Your task to perform on an android device: install app "Venmo" Image 0: 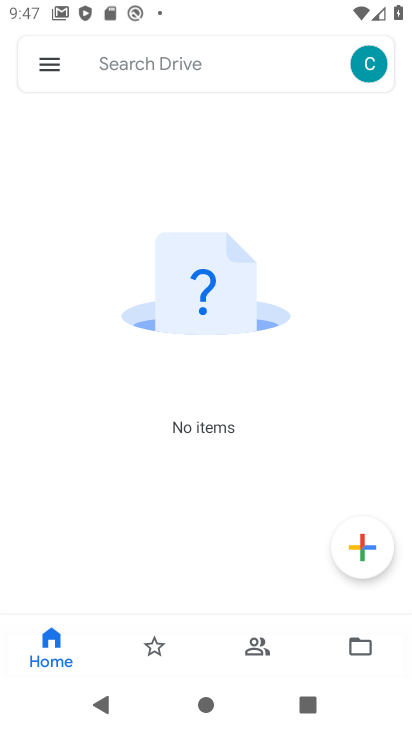
Step 0: press back button
Your task to perform on an android device: install app "Venmo" Image 1: 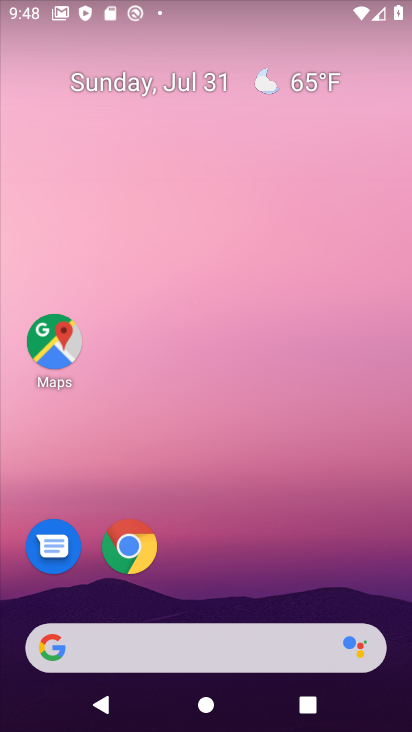
Step 1: drag from (260, 596) to (298, 54)
Your task to perform on an android device: install app "Venmo" Image 2: 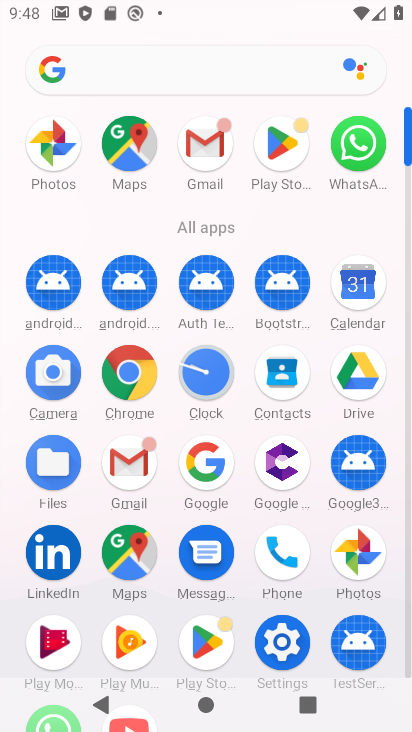
Step 2: click (279, 156)
Your task to perform on an android device: install app "Venmo" Image 3: 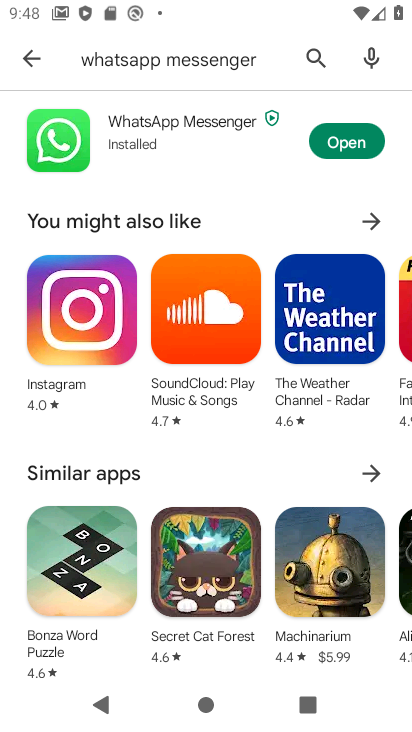
Step 3: click (327, 53)
Your task to perform on an android device: install app "Venmo" Image 4: 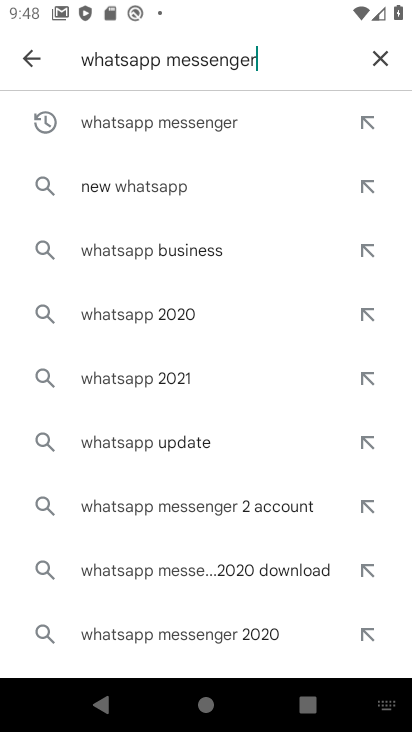
Step 4: click (389, 56)
Your task to perform on an android device: install app "Venmo" Image 5: 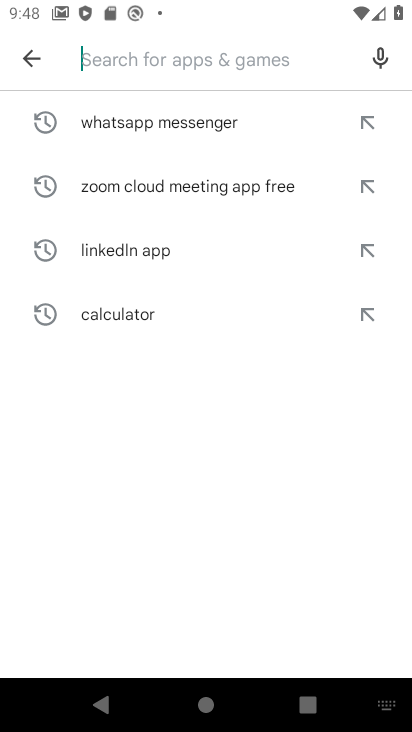
Step 5: click (152, 51)
Your task to perform on an android device: install app "Venmo" Image 6: 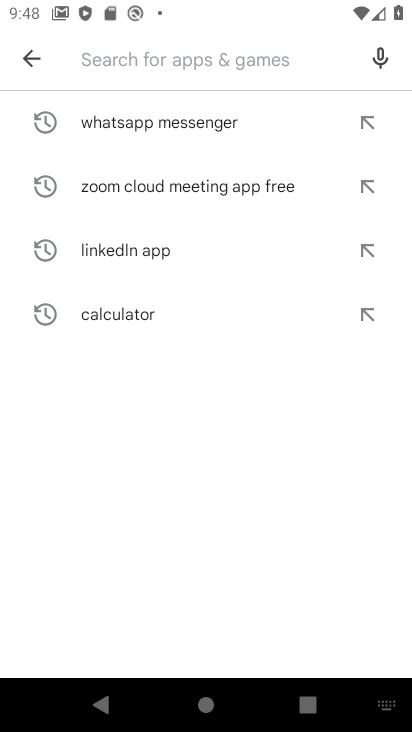
Step 6: type "venmo"
Your task to perform on an android device: install app "Venmo" Image 7: 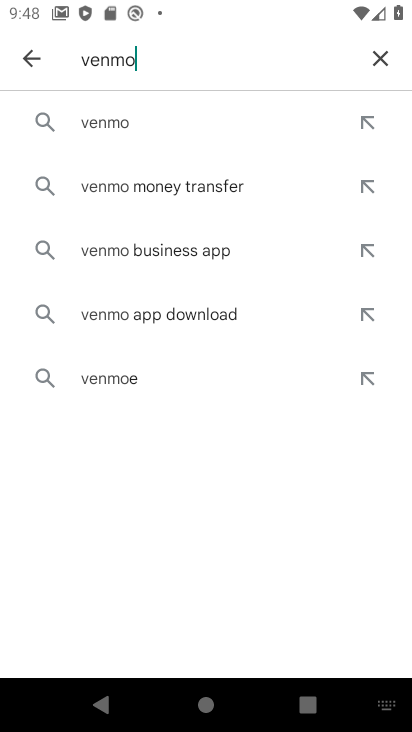
Step 7: click (138, 125)
Your task to perform on an android device: install app "Venmo" Image 8: 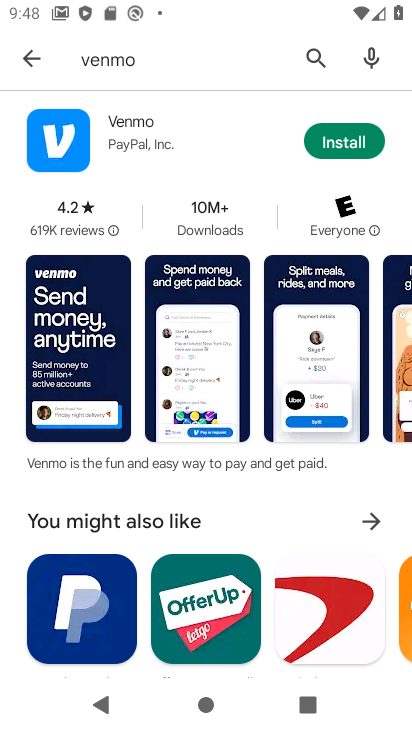
Step 8: click (347, 146)
Your task to perform on an android device: install app "Venmo" Image 9: 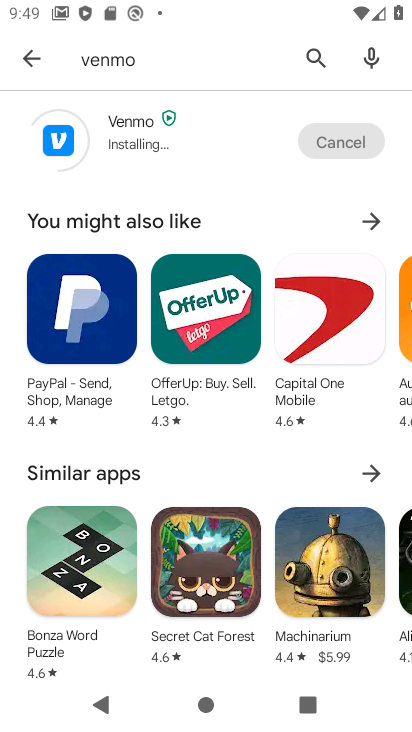
Step 9: click (21, 52)
Your task to perform on an android device: install app "Venmo" Image 10: 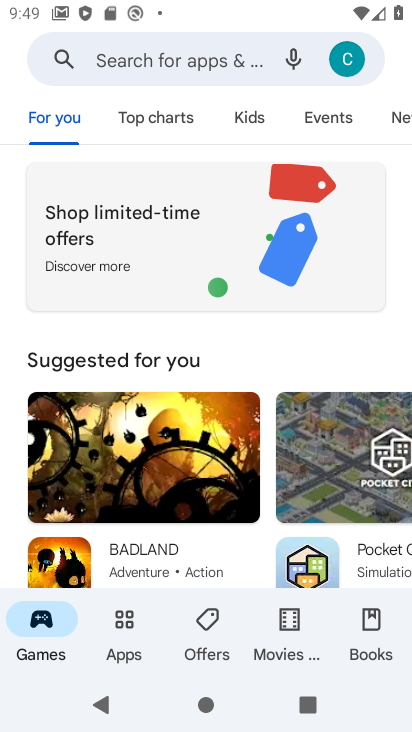
Step 10: click (148, 70)
Your task to perform on an android device: install app "Venmo" Image 11: 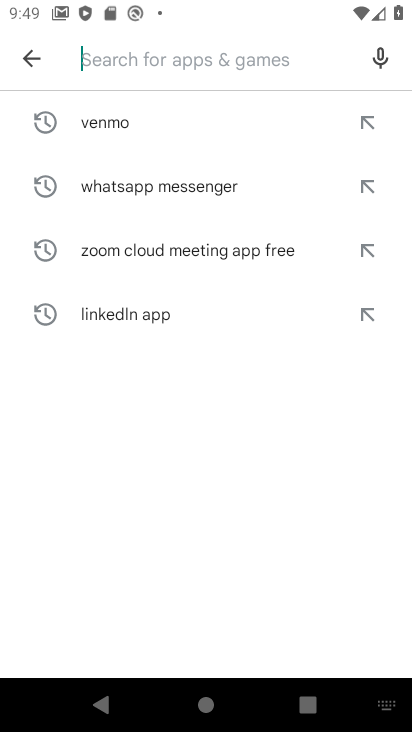
Step 11: click (98, 117)
Your task to perform on an android device: install app "Venmo" Image 12: 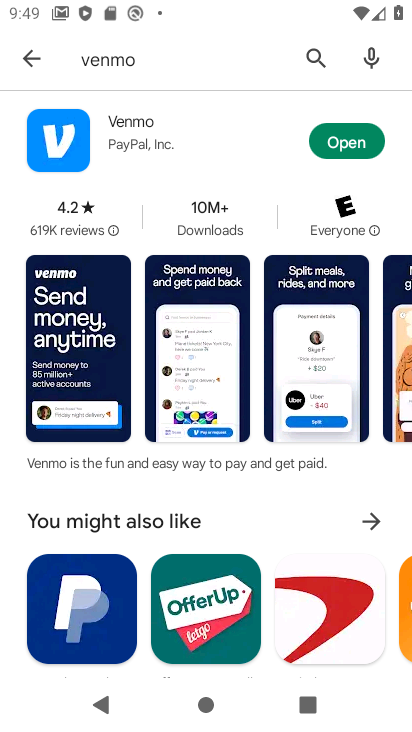
Step 12: task complete